Your task to perform on an android device: change the clock display to analog Image 0: 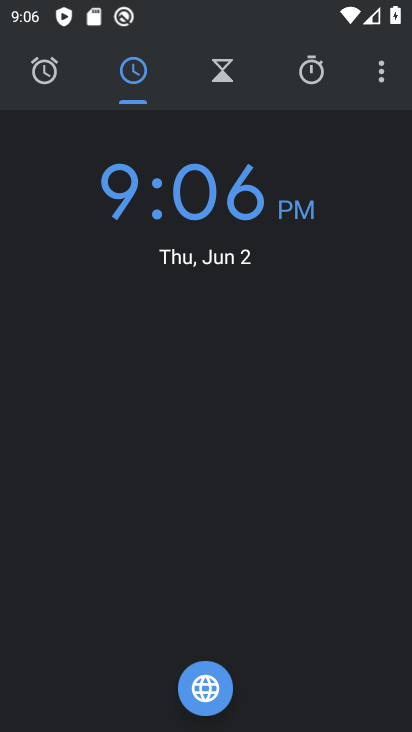
Step 0: click (381, 63)
Your task to perform on an android device: change the clock display to analog Image 1: 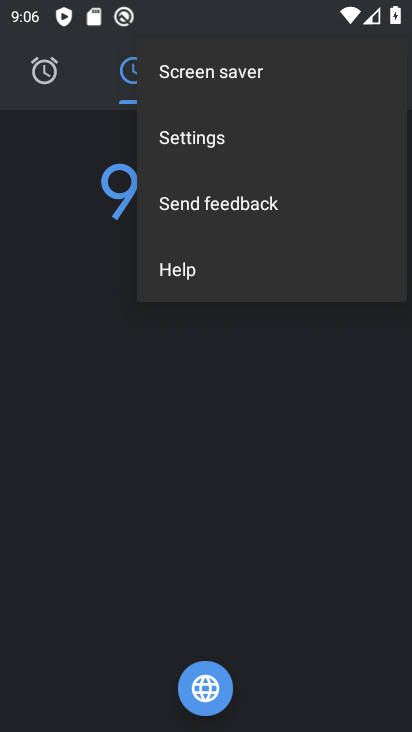
Step 1: click (224, 154)
Your task to perform on an android device: change the clock display to analog Image 2: 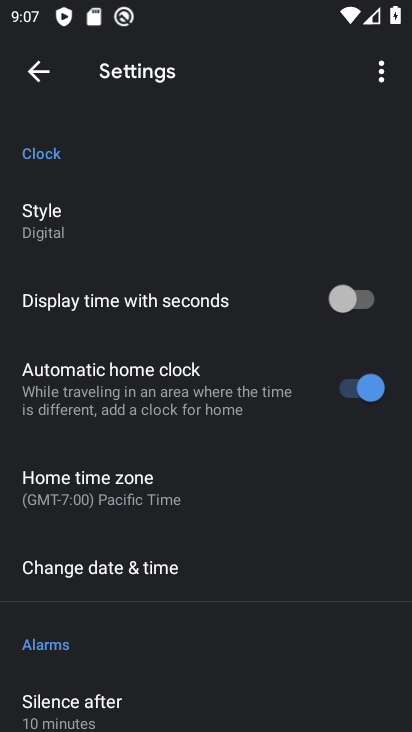
Step 2: click (58, 228)
Your task to perform on an android device: change the clock display to analog Image 3: 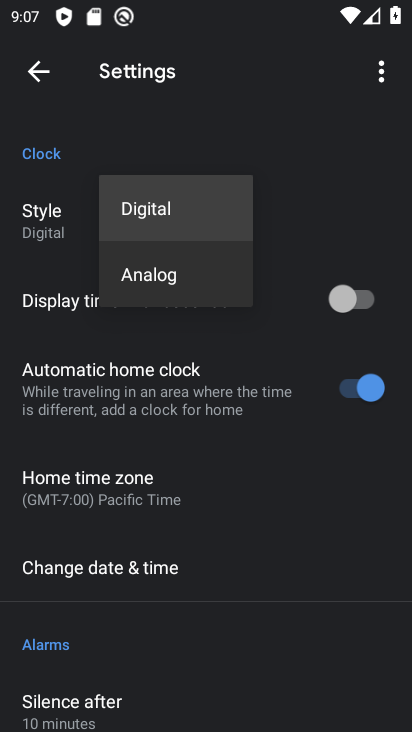
Step 3: click (137, 276)
Your task to perform on an android device: change the clock display to analog Image 4: 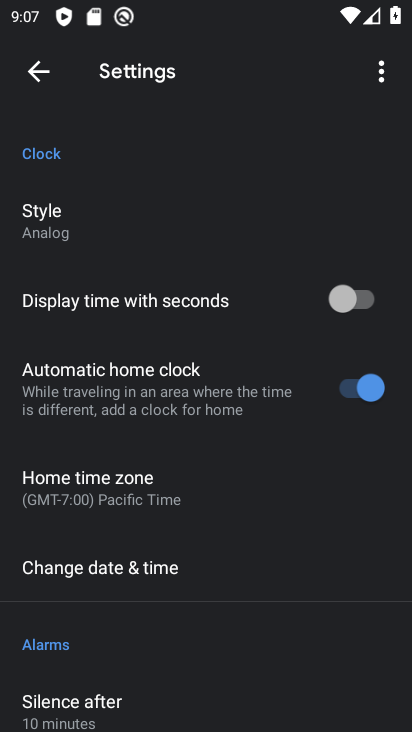
Step 4: task complete